Your task to perform on an android device: Open settings on Google Maps Image 0: 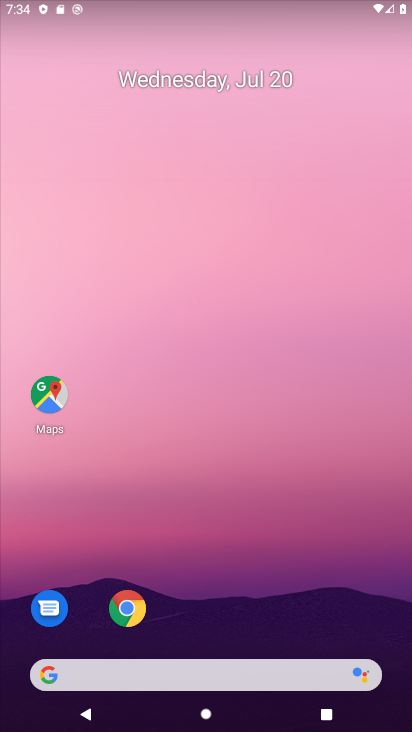
Step 0: click (55, 412)
Your task to perform on an android device: Open settings on Google Maps Image 1: 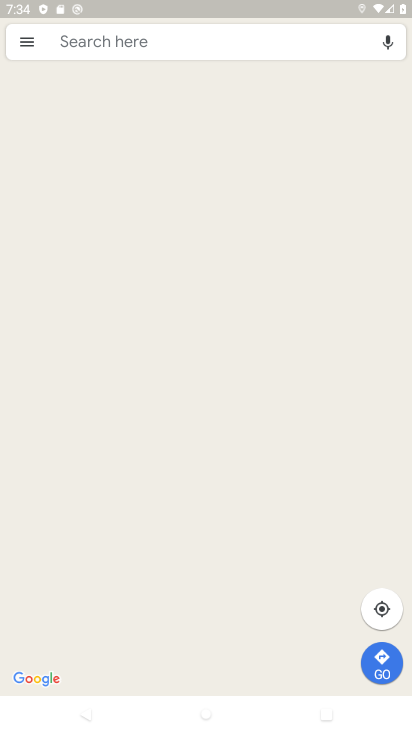
Step 1: click (33, 48)
Your task to perform on an android device: Open settings on Google Maps Image 2: 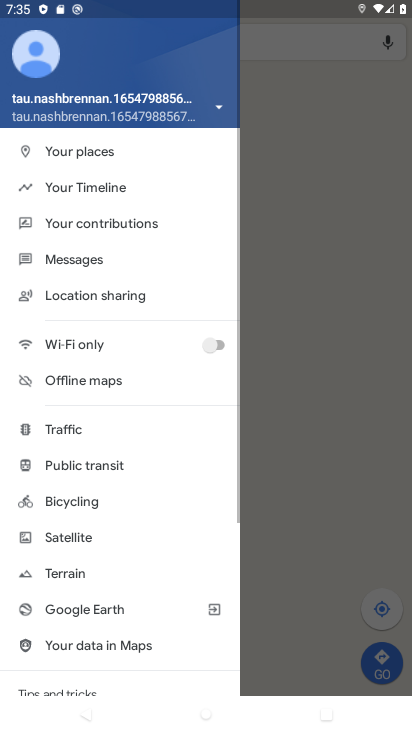
Step 2: drag from (80, 625) to (121, 346)
Your task to perform on an android device: Open settings on Google Maps Image 3: 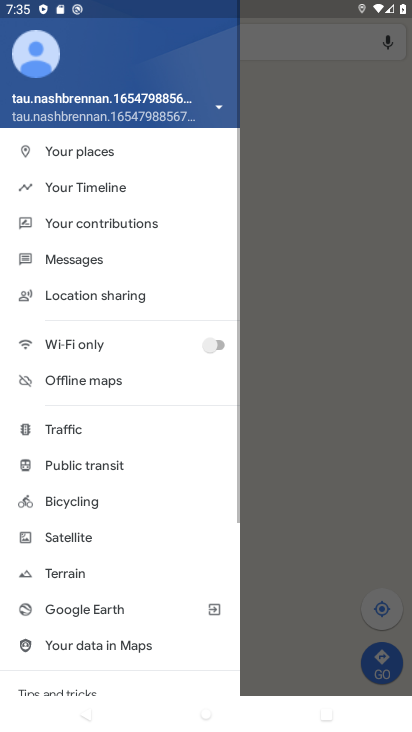
Step 3: drag from (93, 635) to (89, 258)
Your task to perform on an android device: Open settings on Google Maps Image 4: 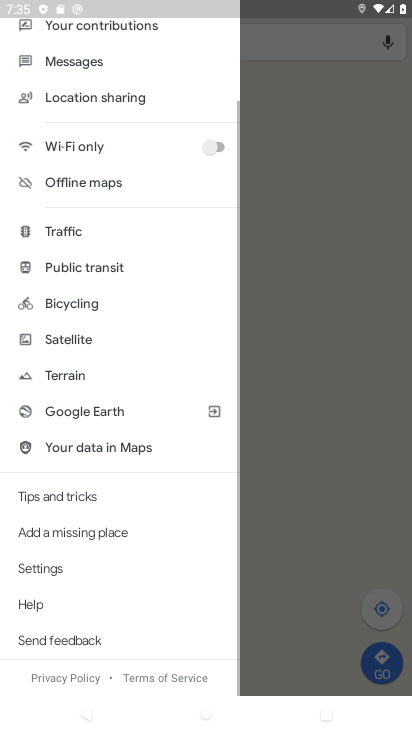
Step 4: click (50, 576)
Your task to perform on an android device: Open settings on Google Maps Image 5: 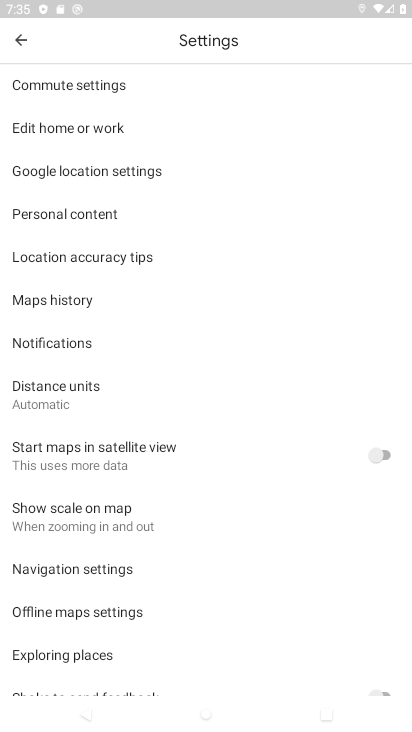
Step 5: task complete